Your task to perform on an android device: all mails in gmail Image 0: 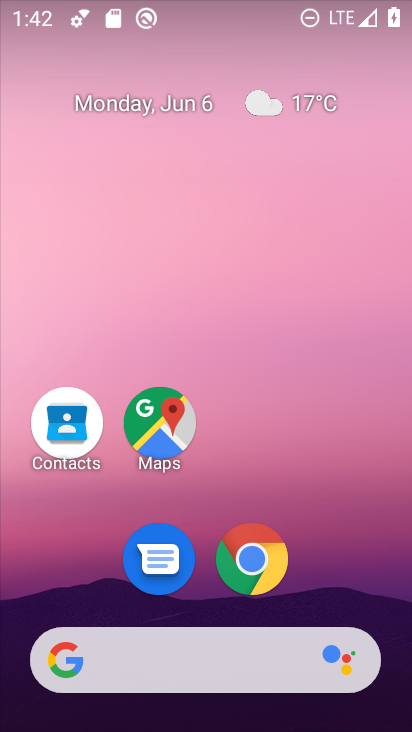
Step 0: drag from (251, 606) to (328, 109)
Your task to perform on an android device: all mails in gmail Image 1: 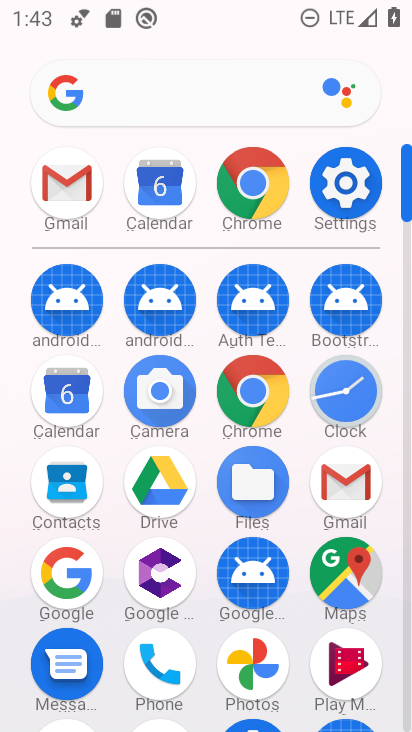
Step 1: click (358, 495)
Your task to perform on an android device: all mails in gmail Image 2: 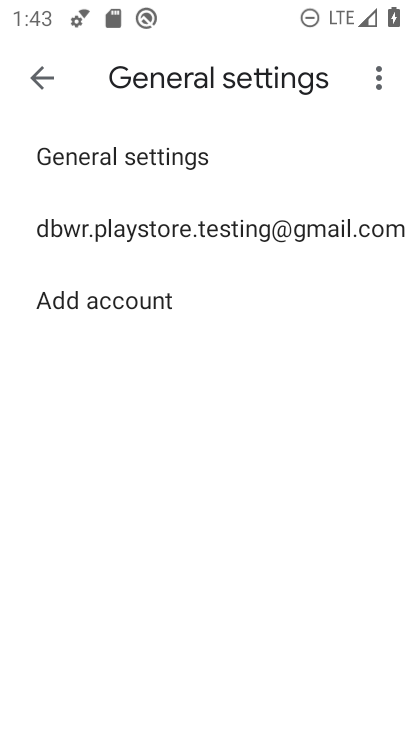
Step 2: click (40, 73)
Your task to perform on an android device: all mails in gmail Image 3: 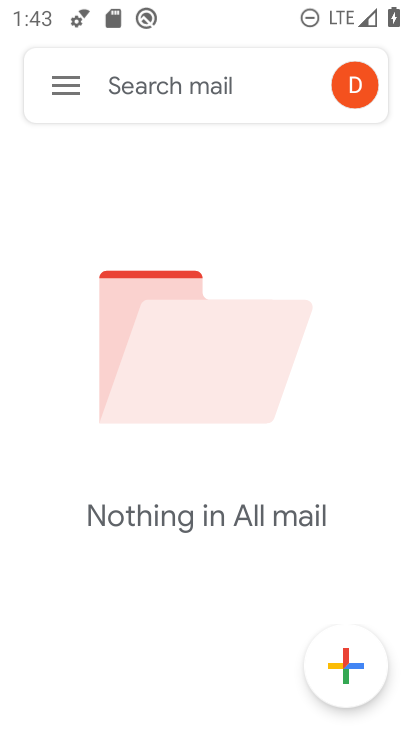
Step 3: click (62, 96)
Your task to perform on an android device: all mails in gmail Image 4: 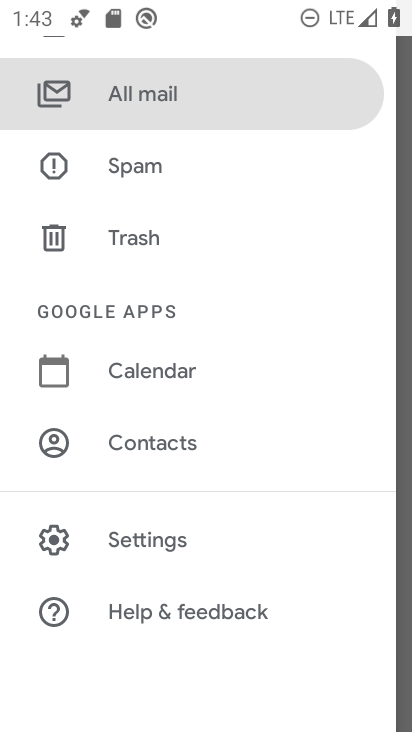
Step 4: click (152, 111)
Your task to perform on an android device: all mails in gmail Image 5: 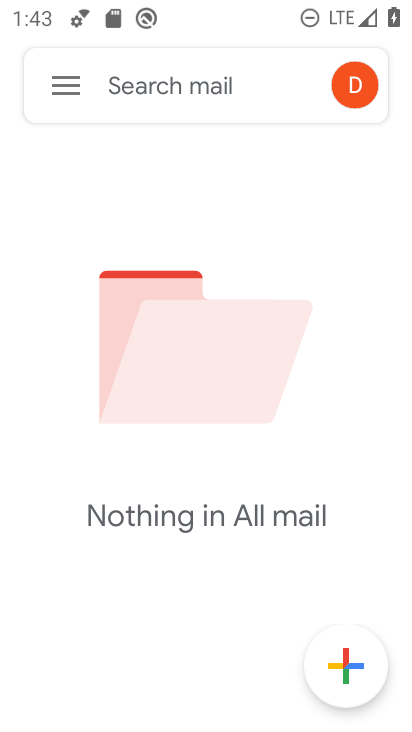
Step 5: task complete